Your task to perform on an android device: Show me popular videos on Youtube Image 0: 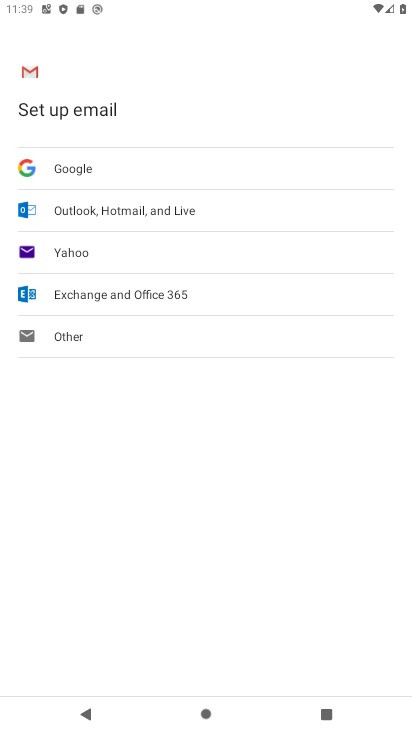
Step 0: press home button
Your task to perform on an android device: Show me popular videos on Youtube Image 1: 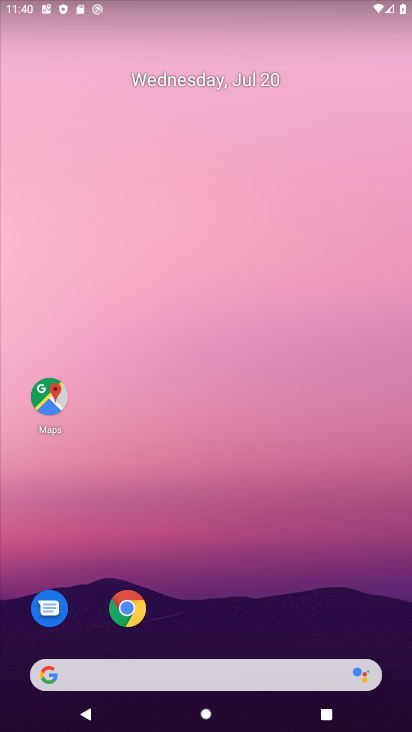
Step 1: drag from (247, 515) to (137, 53)
Your task to perform on an android device: Show me popular videos on Youtube Image 2: 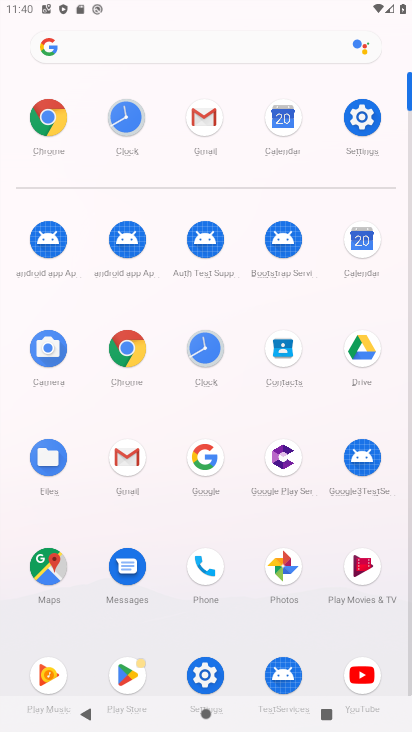
Step 2: click (364, 671)
Your task to perform on an android device: Show me popular videos on Youtube Image 3: 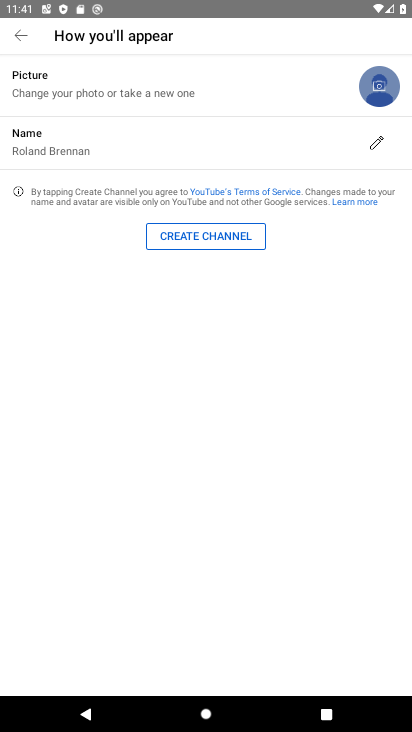
Step 3: task complete